Your task to perform on an android device: turn off javascript in the chrome app Image 0: 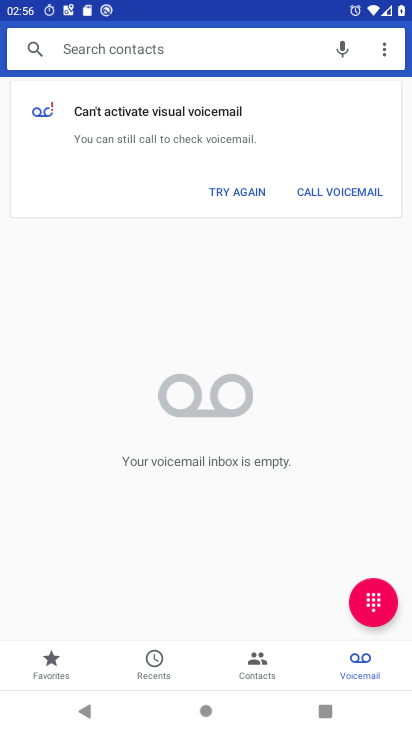
Step 0: drag from (207, 583) to (246, 319)
Your task to perform on an android device: turn off javascript in the chrome app Image 1: 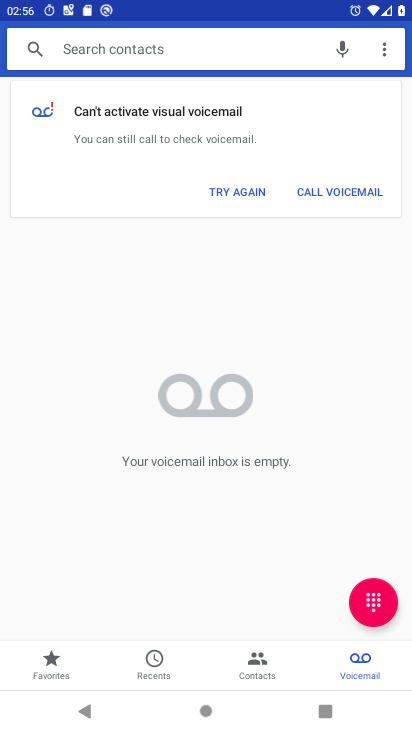
Step 1: drag from (182, 574) to (211, 315)
Your task to perform on an android device: turn off javascript in the chrome app Image 2: 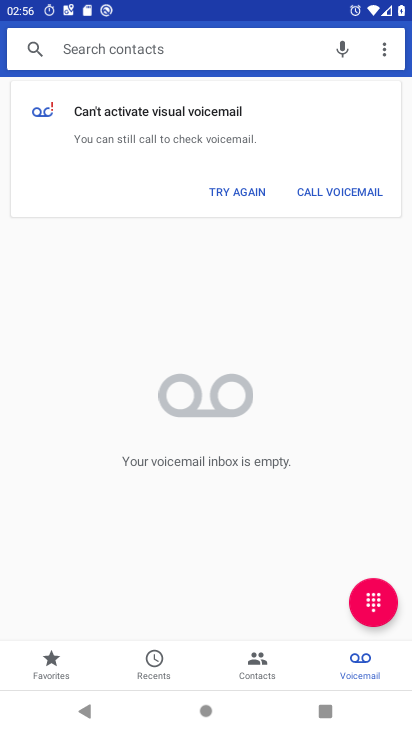
Step 2: press home button
Your task to perform on an android device: turn off javascript in the chrome app Image 3: 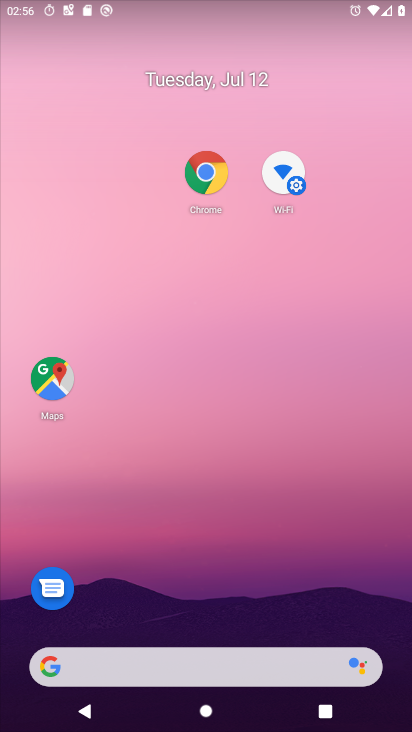
Step 3: drag from (219, 643) to (406, 169)
Your task to perform on an android device: turn off javascript in the chrome app Image 4: 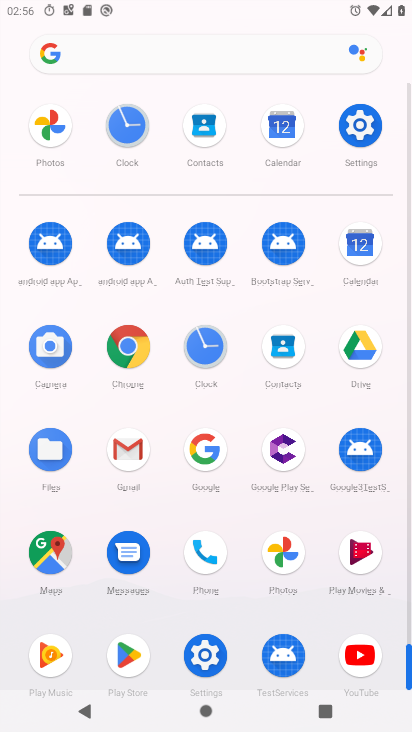
Step 4: click (135, 323)
Your task to perform on an android device: turn off javascript in the chrome app Image 5: 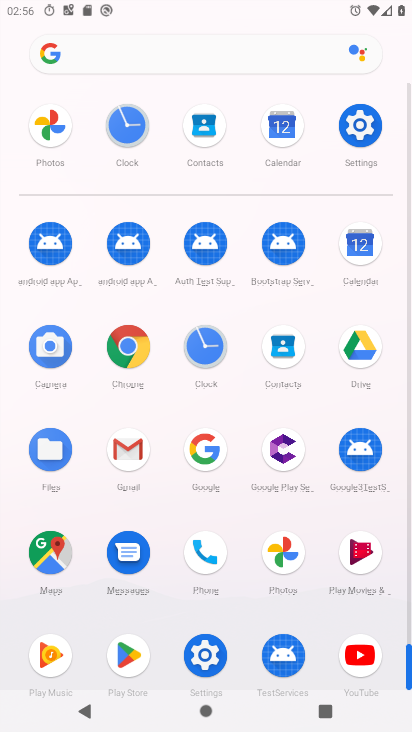
Step 5: click (135, 323)
Your task to perform on an android device: turn off javascript in the chrome app Image 6: 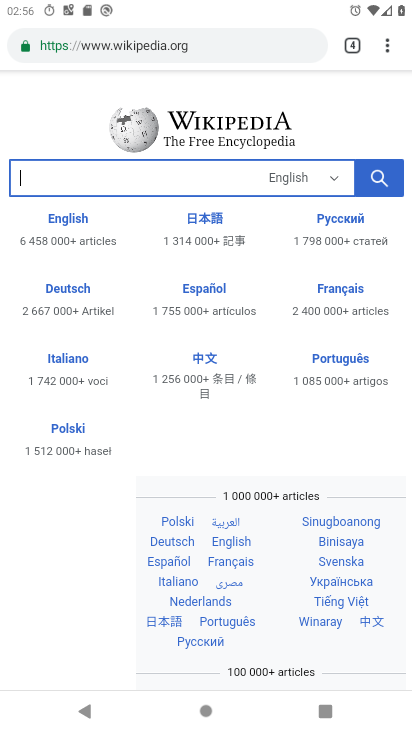
Step 6: drag from (220, 536) to (317, 268)
Your task to perform on an android device: turn off javascript in the chrome app Image 7: 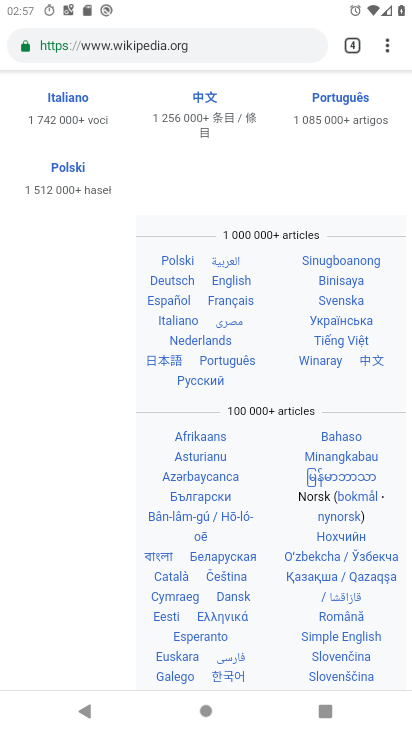
Step 7: click (385, 45)
Your task to perform on an android device: turn off javascript in the chrome app Image 8: 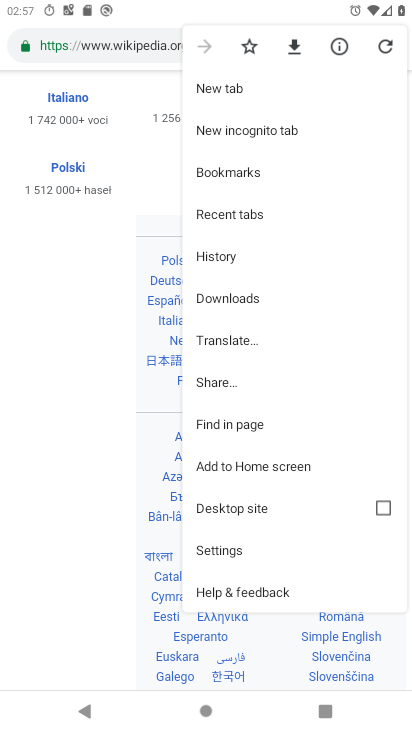
Step 8: click (237, 555)
Your task to perform on an android device: turn off javascript in the chrome app Image 9: 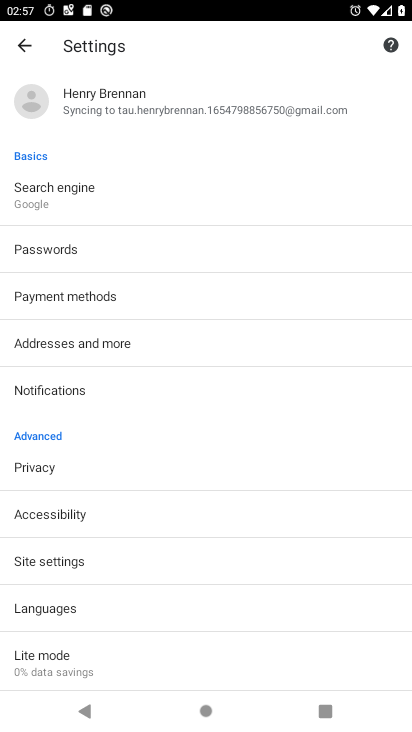
Step 9: drag from (176, 403) to (174, 350)
Your task to perform on an android device: turn off javascript in the chrome app Image 10: 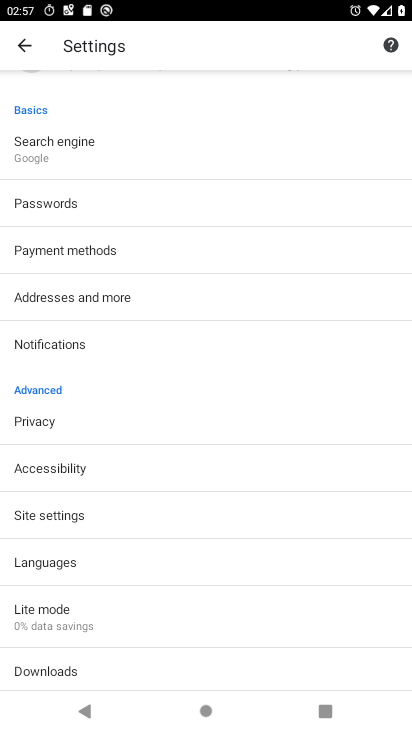
Step 10: click (126, 510)
Your task to perform on an android device: turn off javascript in the chrome app Image 11: 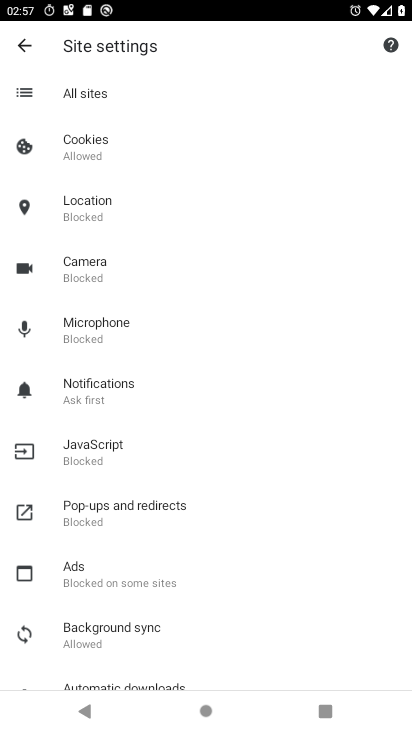
Step 11: click (115, 449)
Your task to perform on an android device: turn off javascript in the chrome app Image 12: 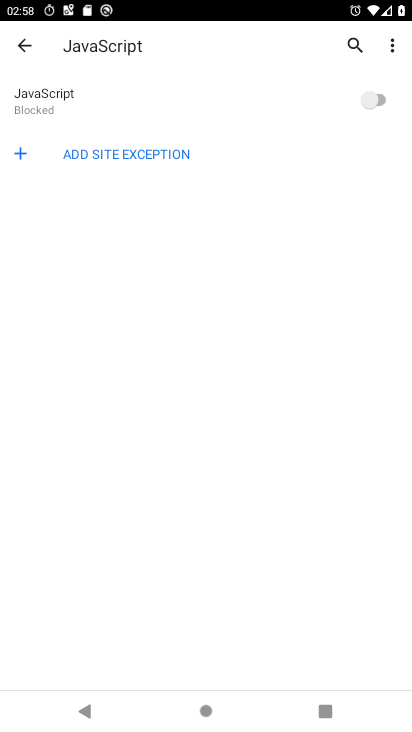
Step 12: task complete